Your task to perform on an android device: Go to network settings Image 0: 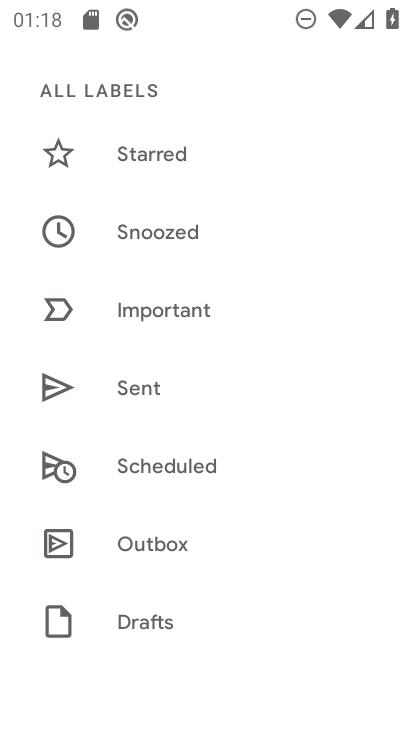
Step 0: drag from (171, 645) to (255, 207)
Your task to perform on an android device: Go to network settings Image 1: 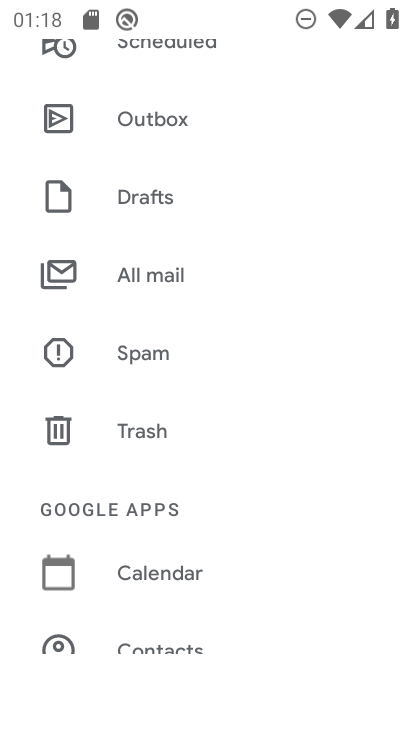
Step 1: drag from (178, 150) to (331, 721)
Your task to perform on an android device: Go to network settings Image 2: 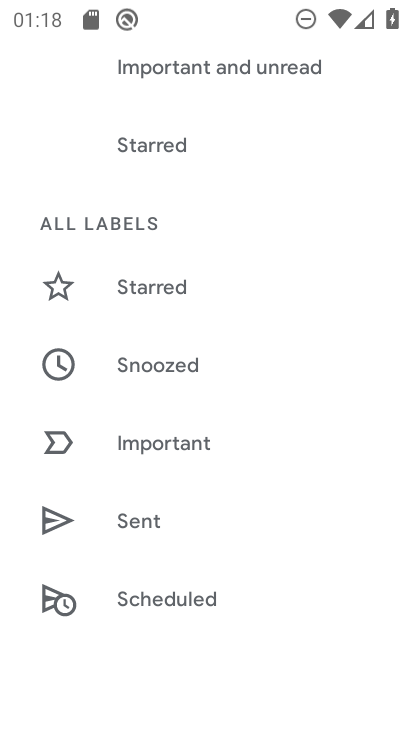
Step 2: drag from (197, 143) to (242, 651)
Your task to perform on an android device: Go to network settings Image 3: 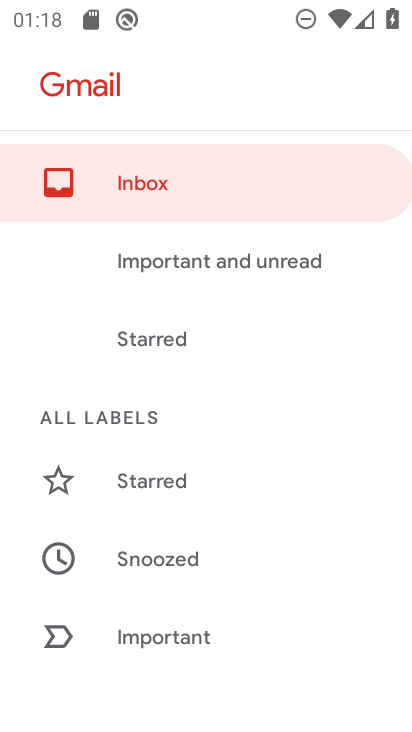
Step 3: press home button
Your task to perform on an android device: Go to network settings Image 4: 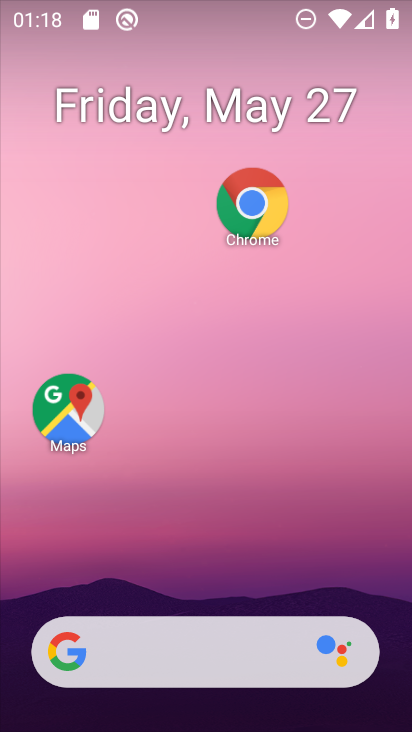
Step 4: drag from (222, 610) to (310, 57)
Your task to perform on an android device: Go to network settings Image 5: 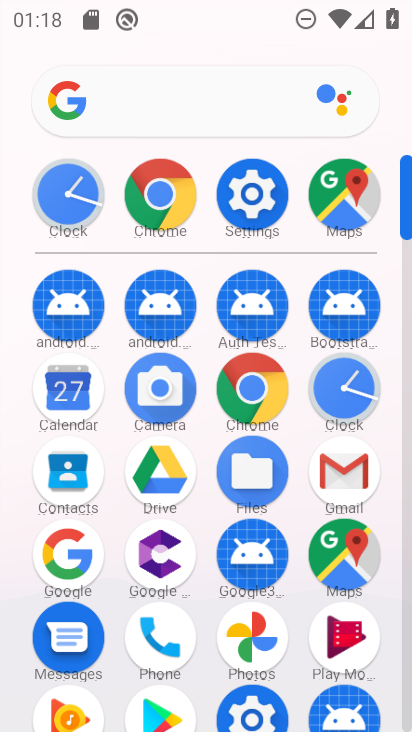
Step 5: click (261, 168)
Your task to perform on an android device: Go to network settings Image 6: 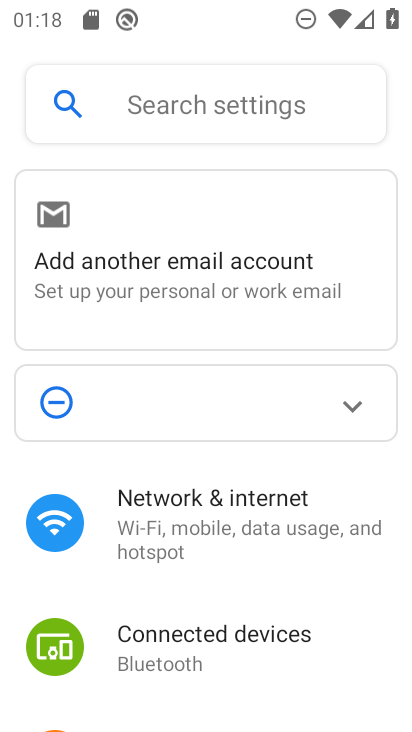
Step 6: click (228, 480)
Your task to perform on an android device: Go to network settings Image 7: 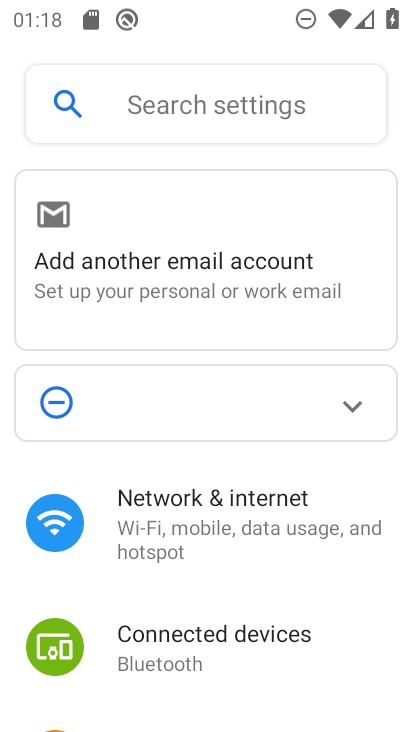
Step 7: click (228, 480)
Your task to perform on an android device: Go to network settings Image 8: 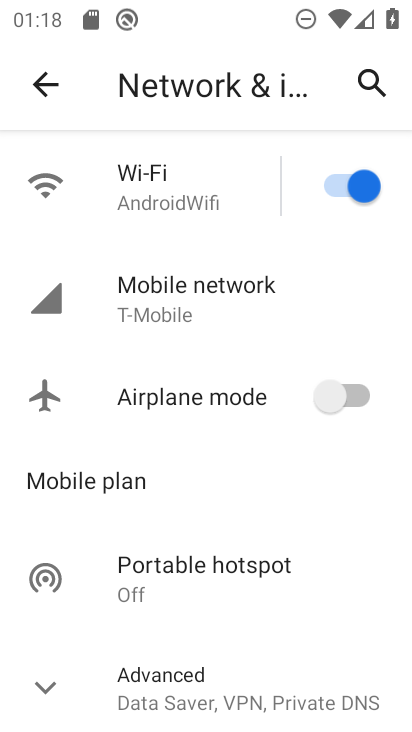
Step 8: click (196, 334)
Your task to perform on an android device: Go to network settings Image 9: 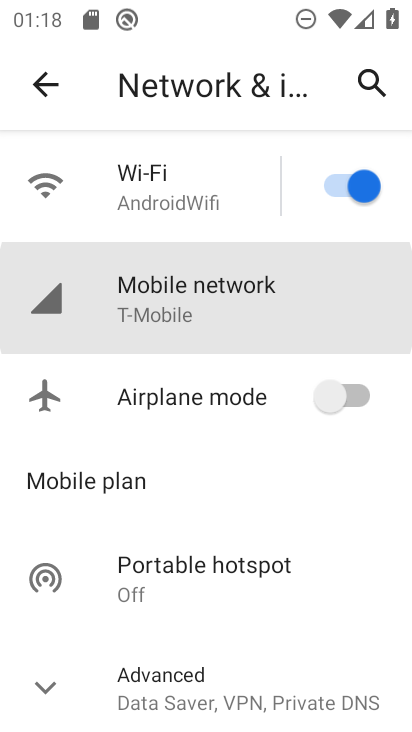
Step 9: click (196, 334)
Your task to perform on an android device: Go to network settings Image 10: 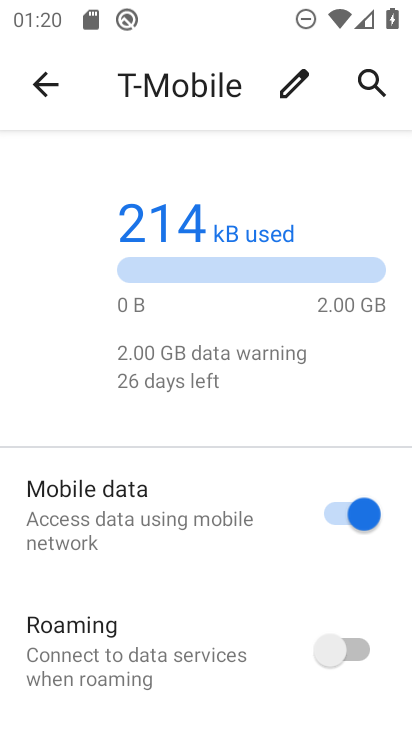
Step 10: task complete